Your task to perform on an android device: Open Google Maps Image 0: 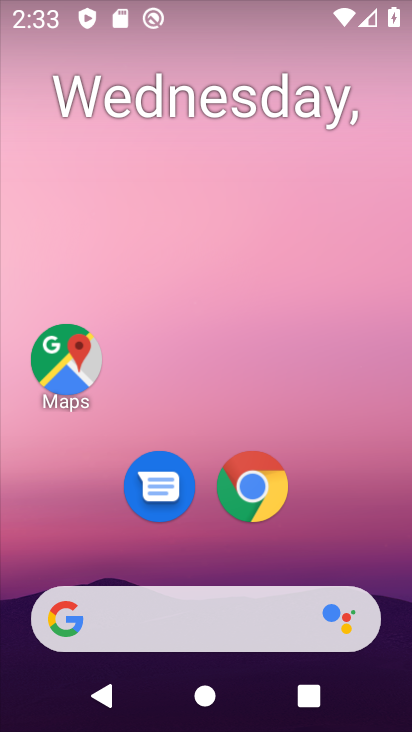
Step 0: click (46, 379)
Your task to perform on an android device: Open Google Maps Image 1: 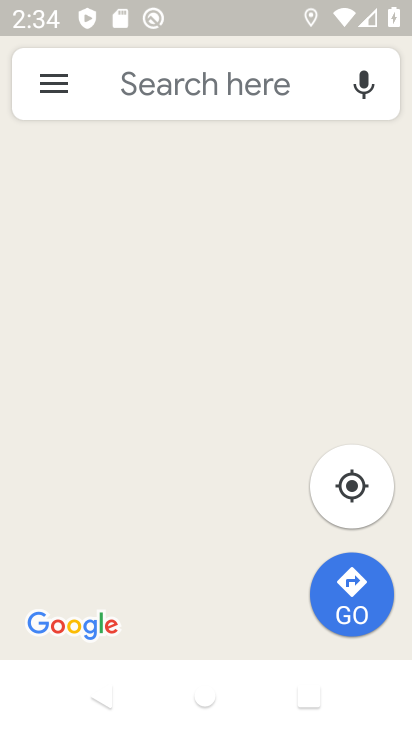
Step 1: task complete